Your task to perform on an android device: Show the shopping cart on costco. Add usb-b to the cart on costco Image 0: 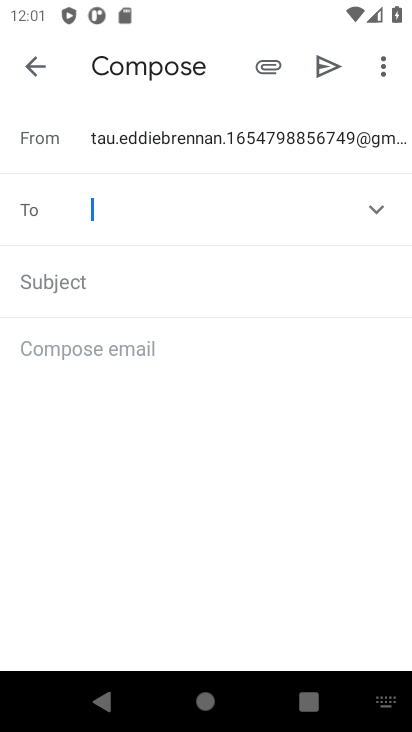
Step 0: press home button
Your task to perform on an android device: Show the shopping cart on costco. Add usb-b to the cart on costco Image 1: 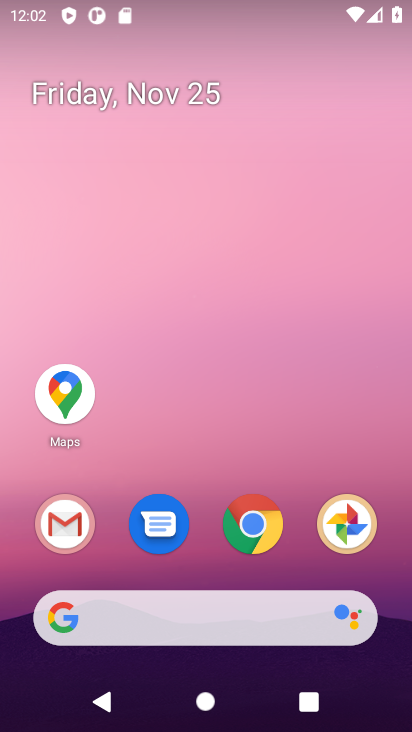
Step 1: click (254, 535)
Your task to perform on an android device: Show the shopping cart on costco. Add usb-b to the cart on costco Image 2: 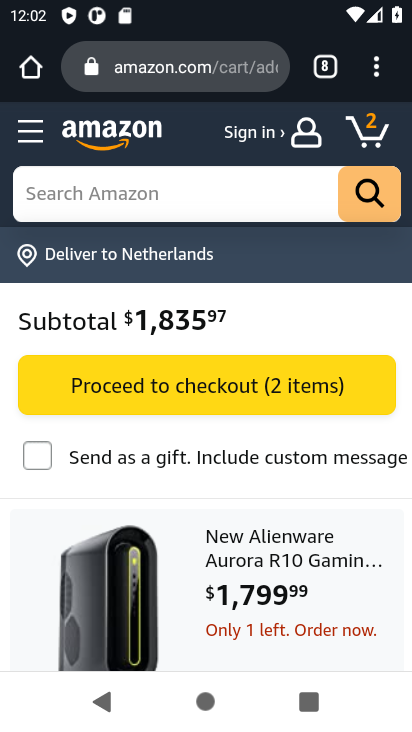
Step 2: click (144, 73)
Your task to perform on an android device: Show the shopping cart on costco. Add usb-b to the cart on costco Image 3: 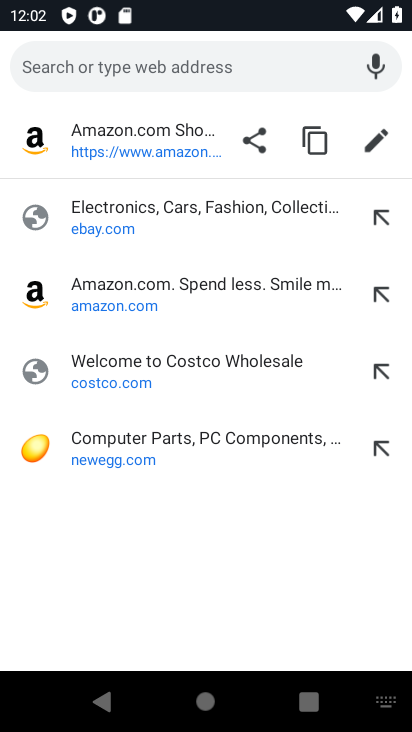
Step 3: click (97, 386)
Your task to perform on an android device: Show the shopping cart on costco. Add usb-b to the cart on costco Image 4: 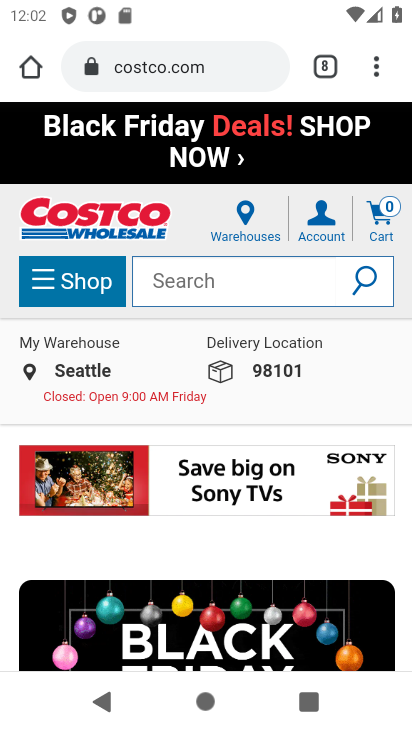
Step 4: click (376, 211)
Your task to perform on an android device: Show the shopping cart on costco. Add usb-b to the cart on costco Image 5: 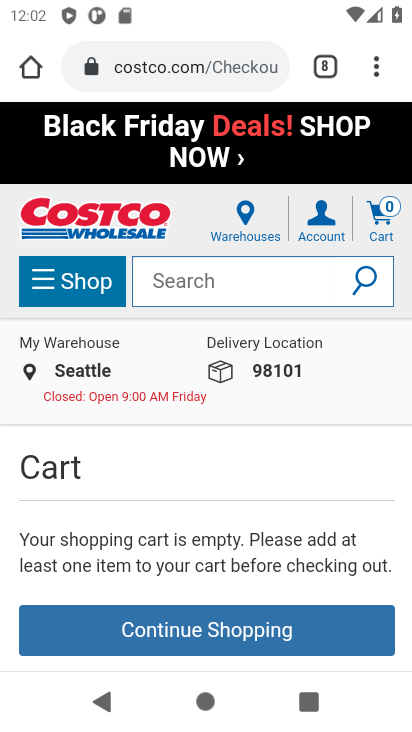
Step 5: drag from (274, 456) to (274, 270)
Your task to perform on an android device: Show the shopping cart on costco. Add usb-b to the cart on costco Image 6: 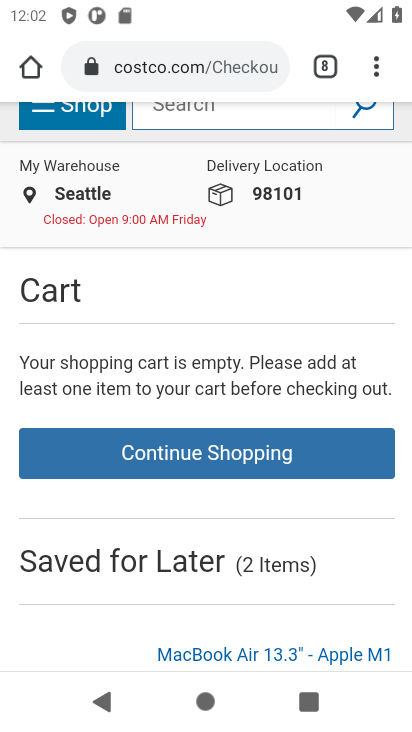
Step 6: drag from (187, 236) to (203, 455)
Your task to perform on an android device: Show the shopping cart on costco. Add usb-b to the cart on costco Image 7: 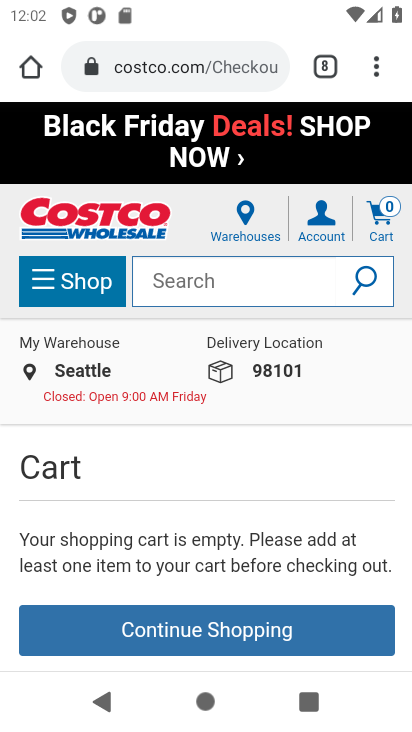
Step 7: click (173, 286)
Your task to perform on an android device: Show the shopping cart on costco. Add usb-b to the cart on costco Image 8: 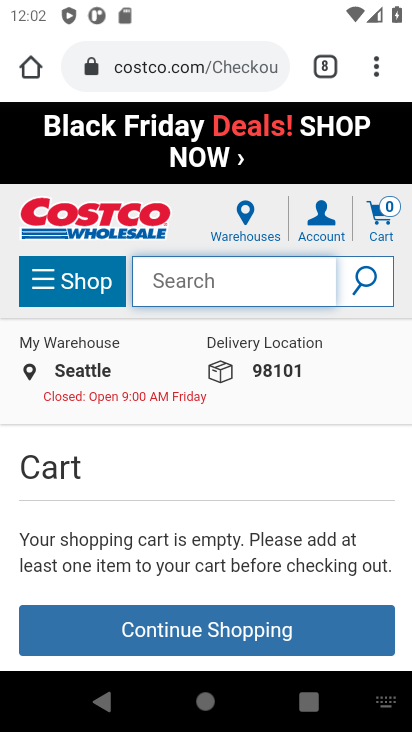
Step 8: type " usb-b"
Your task to perform on an android device: Show the shopping cart on costco. Add usb-b to the cart on costco Image 9: 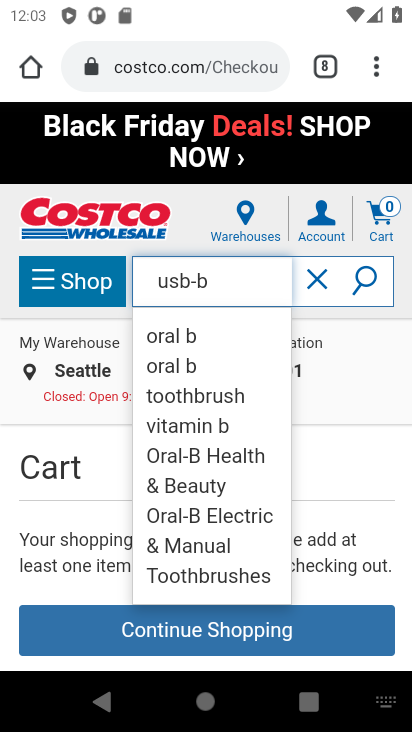
Step 9: click (365, 279)
Your task to perform on an android device: Show the shopping cart on costco. Add usb-b to the cart on costco Image 10: 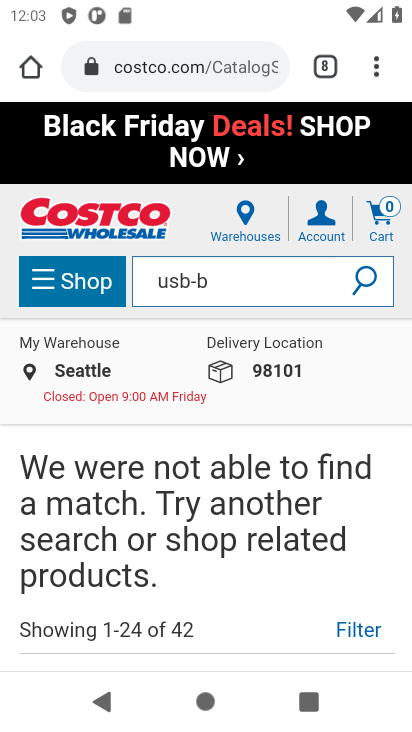
Step 10: task complete